Your task to perform on an android device: open a new tab in the chrome app Image 0: 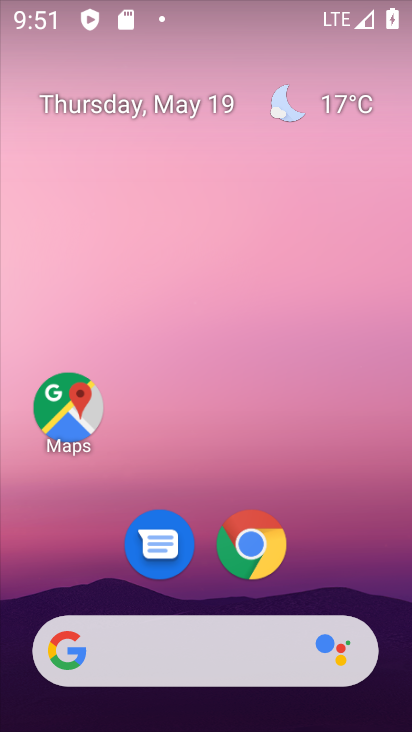
Step 0: click (242, 548)
Your task to perform on an android device: open a new tab in the chrome app Image 1: 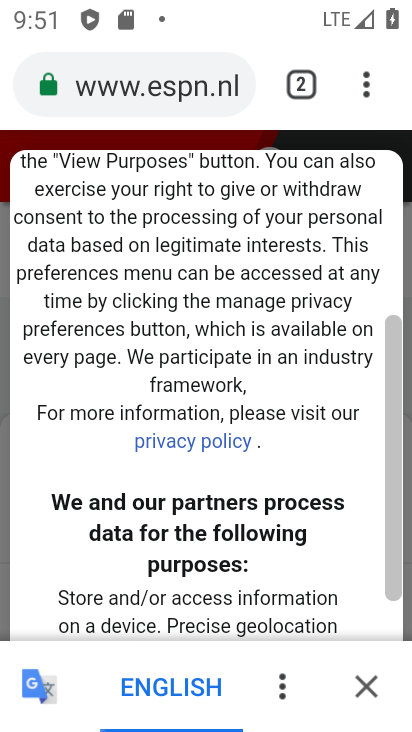
Step 1: click (371, 75)
Your task to perform on an android device: open a new tab in the chrome app Image 2: 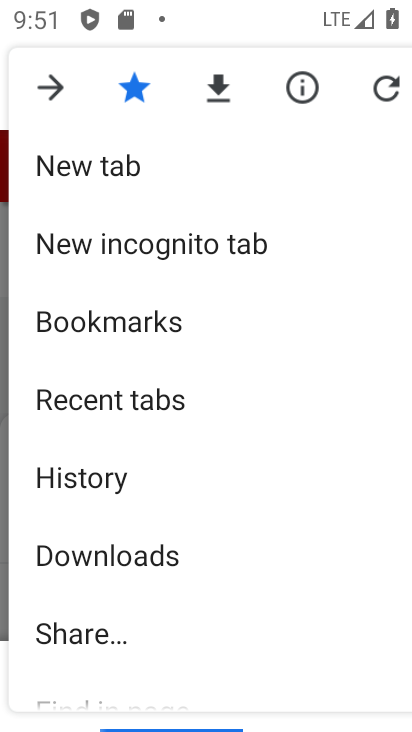
Step 2: click (237, 167)
Your task to perform on an android device: open a new tab in the chrome app Image 3: 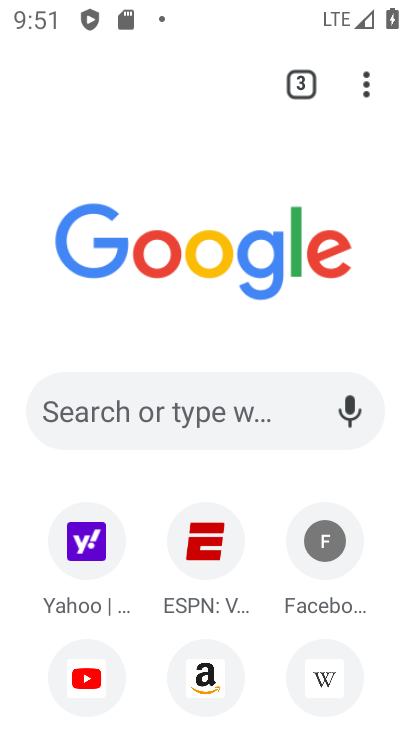
Step 3: click (112, 416)
Your task to perform on an android device: open a new tab in the chrome app Image 4: 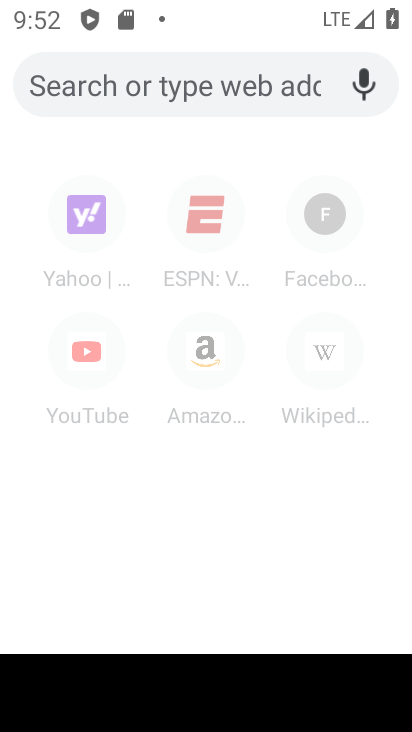
Step 4: press home button
Your task to perform on an android device: open a new tab in the chrome app Image 5: 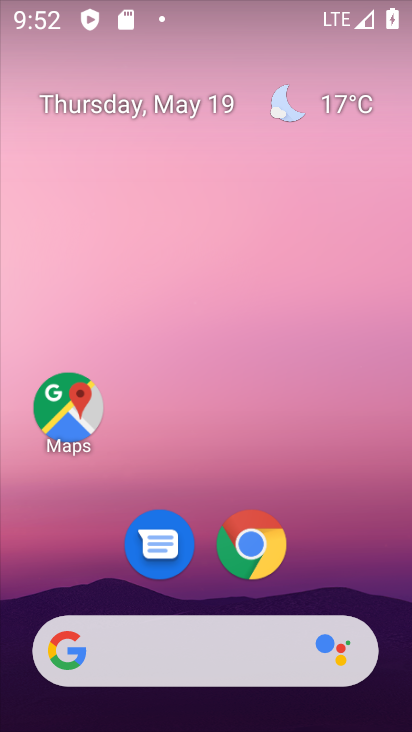
Step 5: press home button
Your task to perform on an android device: open a new tab in the chrome app Image 6: 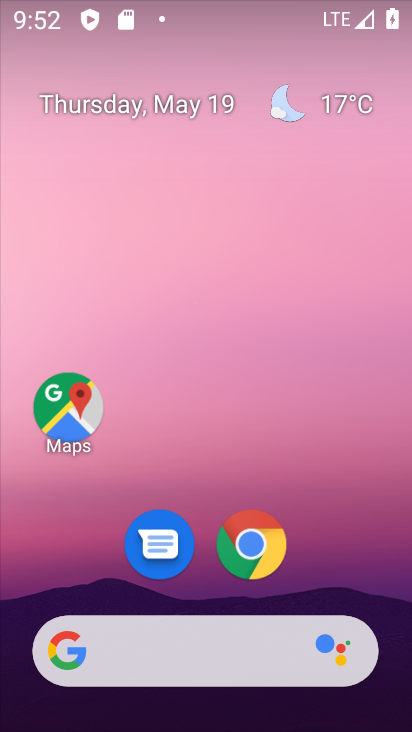
Step 6: press home button
Your task to perform on an android device: open a new tab in the chrome app Image 7: 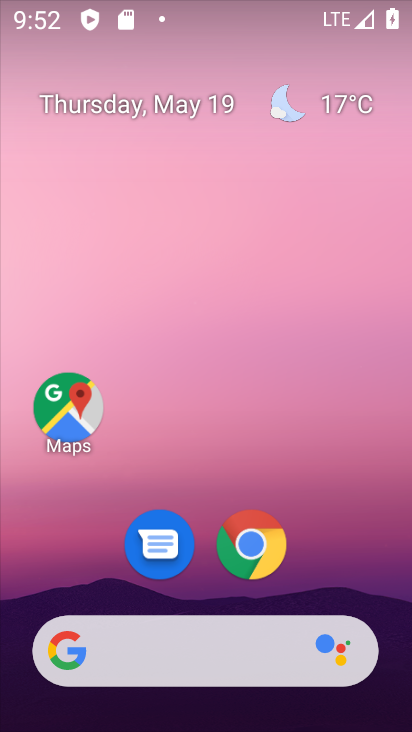
Step 7: click (246, 556)
Your task to perform on an android device: open a new tab in the chrome app Image 8: 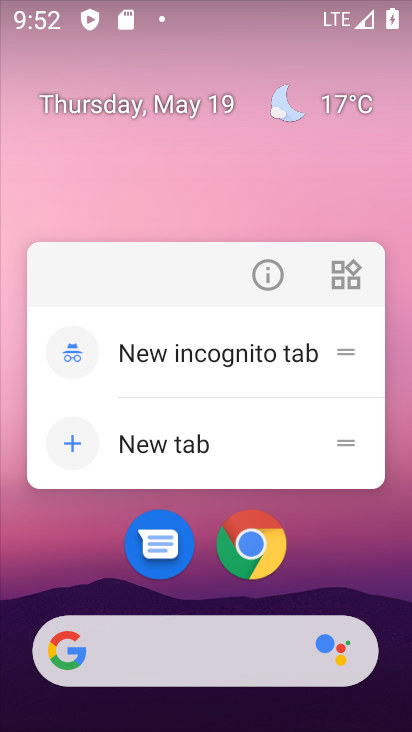
Step 8: click (258, 549)
Your task to perform on an android device: open a new tab in the chrome app Image 9: 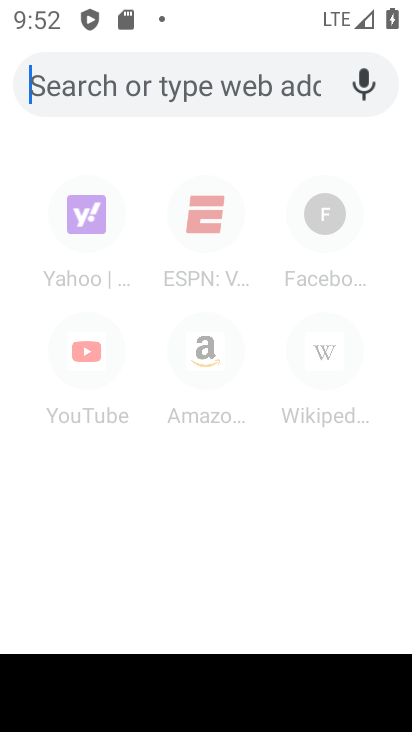
Step 9: press back button
Your task to perform on an android device: open a new tab in the chrome app Image 10: 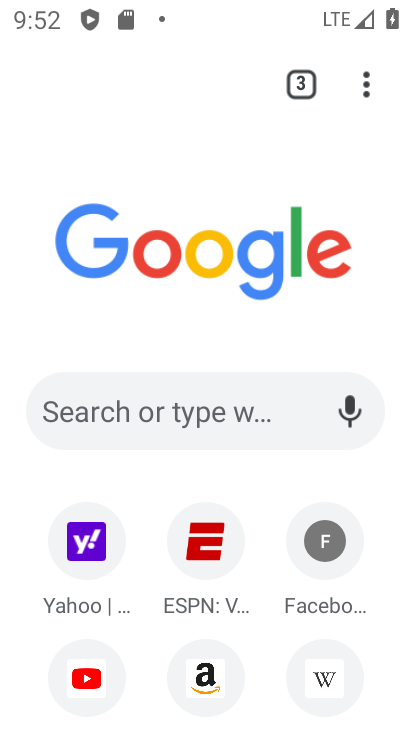
Step 10: click (367, 90)
Your task to perform on an android device: open a new tab in the chrome app Image 11: 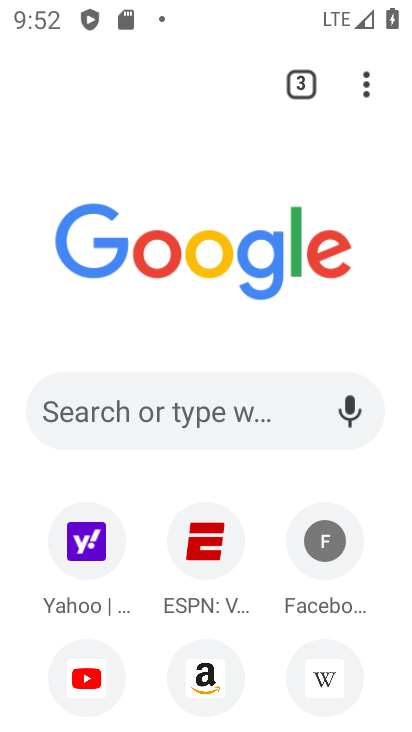
Step 11: click (305, 89)
Your task to perform on an android device: open a new tab in the chrome app Image 12: 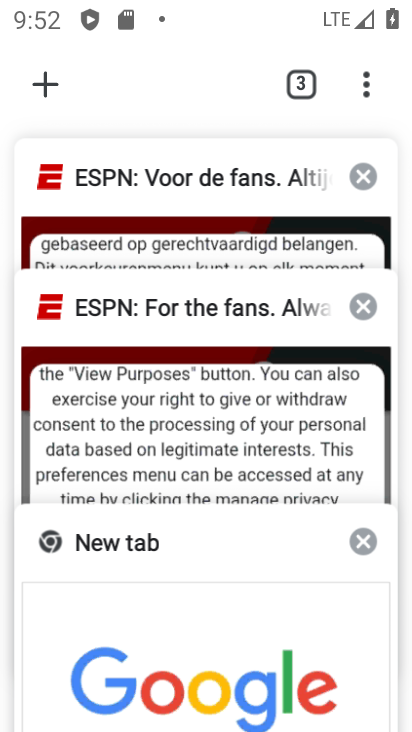
Step 12: click (52, 89)
Your task to perform on an android device: open a new tab in the chrome app Image 13: 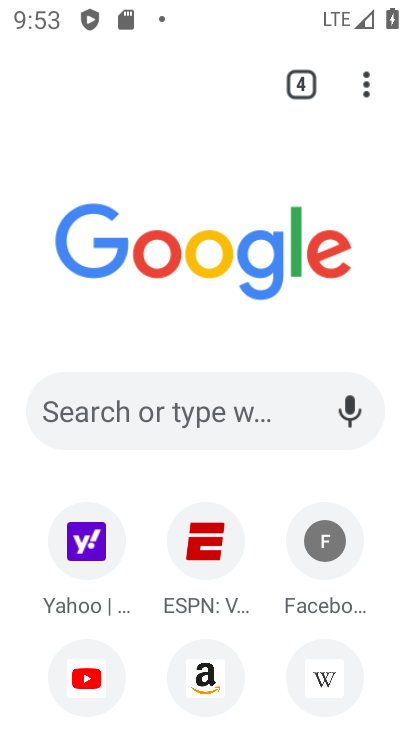
Step 13: task complete